Your task to perform on an android device: open the mobile data screen to see how much data has been used Image 0: 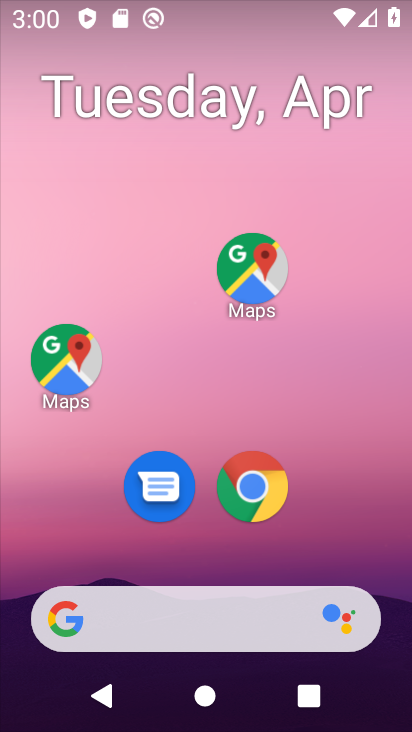
Step 0: drag from (322, 322) to (287, 94)
Your task to perform on an android device: open the mobile data screen to see how much data has been used Image 1: 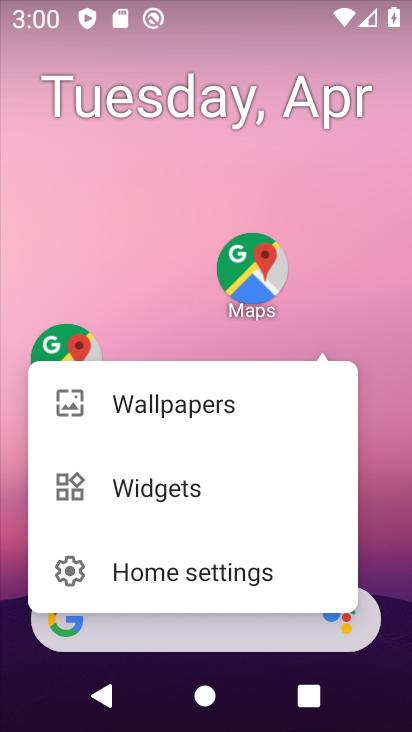
Step 1: click (350, 299)
Your task to perform on an android device: open the mobile data screen to see how much data has been used Image 2: 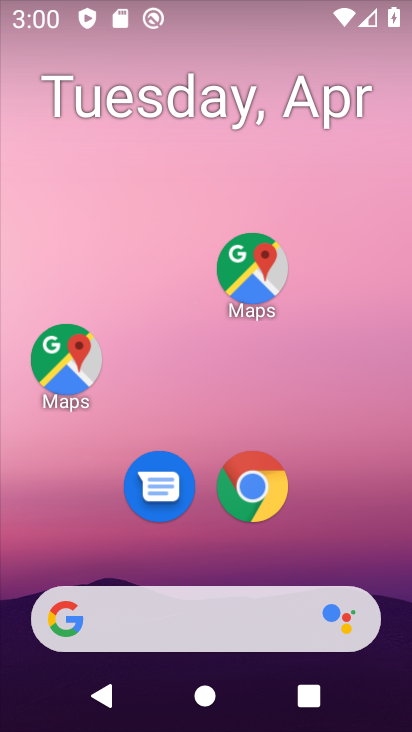
Step 2: drag from (198, 560) to (143, 173)
Your task to perform on an android device: open the mobile data screen to see how much data has been used Image 3: 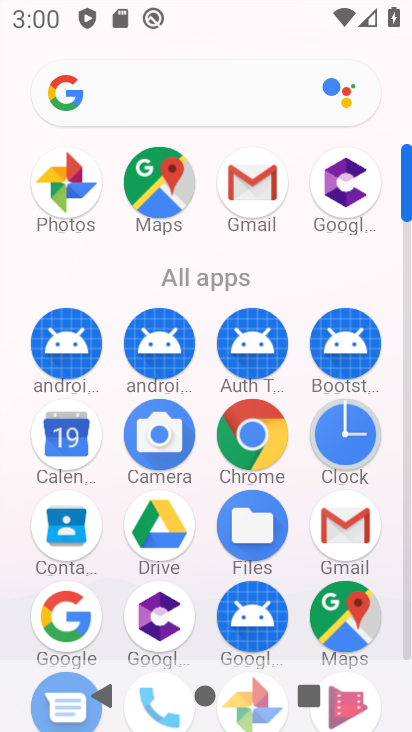
Step 3: drag from (284, 489) to (287, 229)
Your task to perform on an android device: open the mobile data screen to see how much data has been used Image 4: 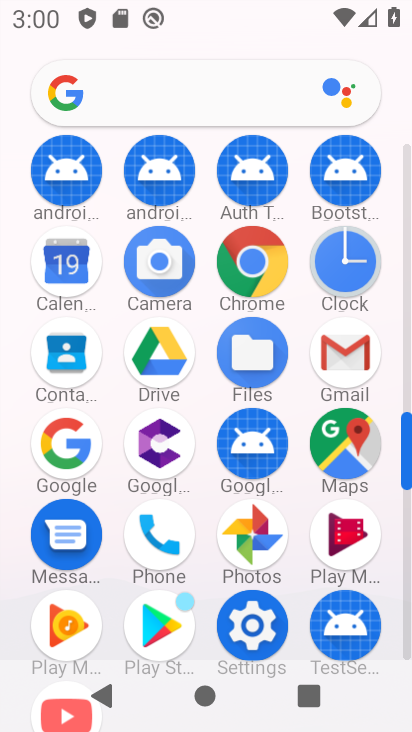
Step 4: click (264, 630)
Your task to perform on an android device: open the mobile data screen to see how much data has been used Image 5: 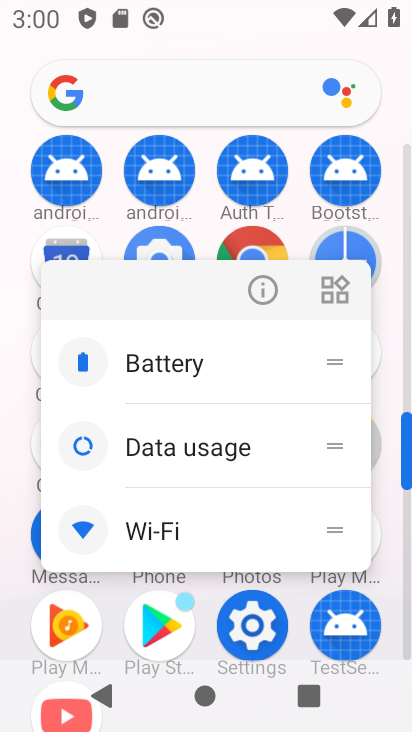
Step 5: click (250, 612)
Your task to perform on an android device: open the mobile data screen to see how much data has been used Image 6: 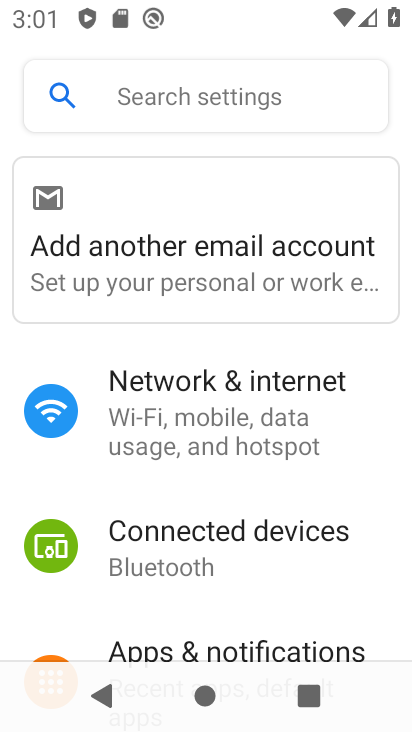
Step 6: drag from (258, 575) to (284, 442)
Your task to perform on an android device: open the mobile data screen to see how much data has been used Image 7: 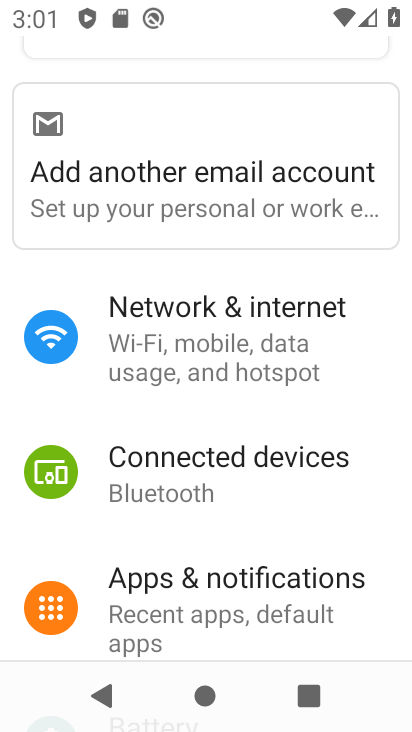
Step 7: click (266, 361)
Your task to perform on an android device: open the mobile data screen to see how much data has been used Image 8: 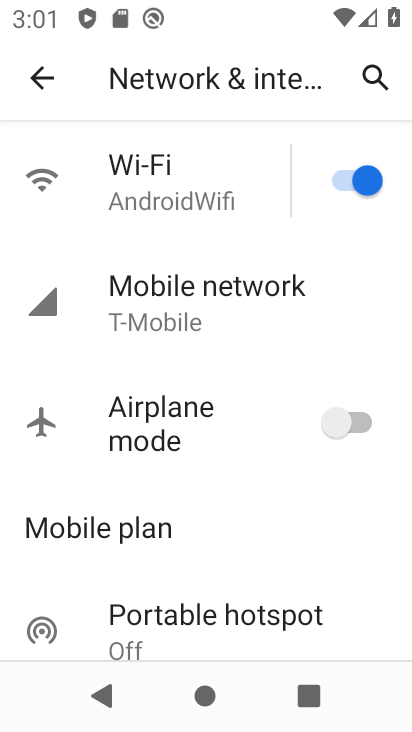
Step 8: click (242, 316)
Your task to perform on an android device: open the mobile data screen to see how much data has been used Image 9: 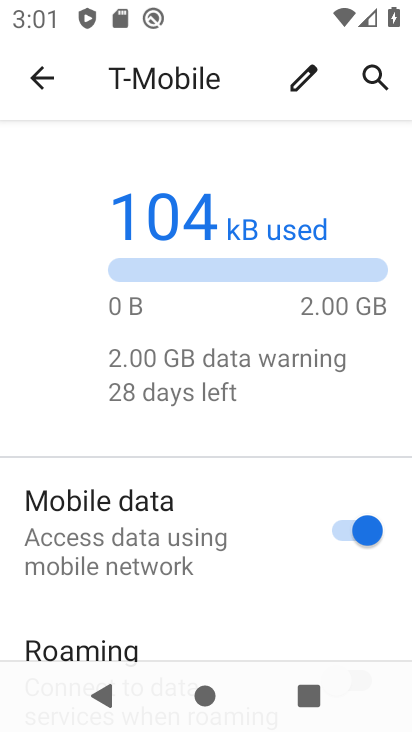
Step 9: click (256, 314)
Your task to perform on an android device: open the mobile data screen to see how much data has been used Image 10: 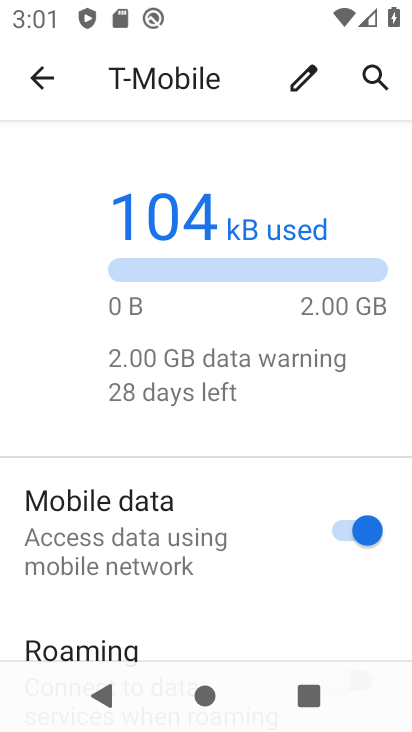
Step 10: click (257, 286)
Your task to perform on an android device: open the mobile data screen to see how much data has been used Image 11: 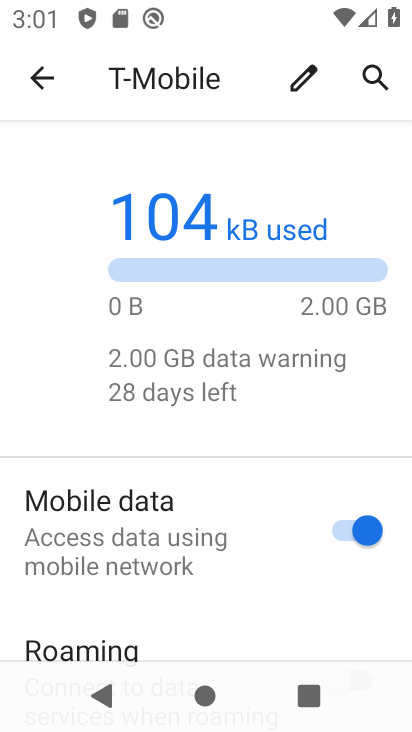
Step 11: drag from (191, 612) to (246, 366)
Your task to perform on an android device: open the mobile data screen to see how much data has been used Image 12: 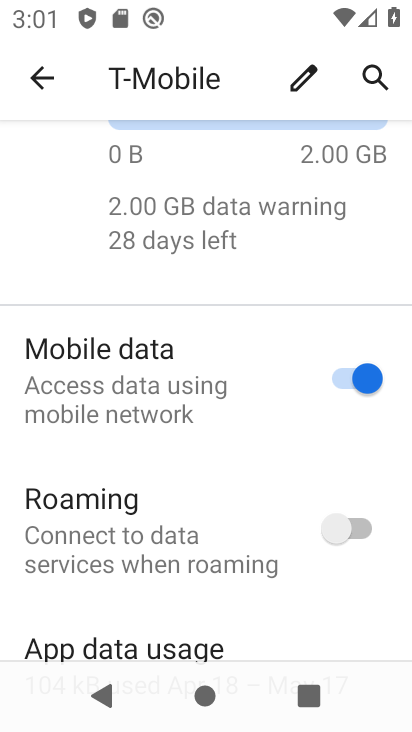
Step 12: drag from (202, 464) to (242, 335)
Your task to perform on an android device: open the mobile data screen to see how much data has been used Image 13: 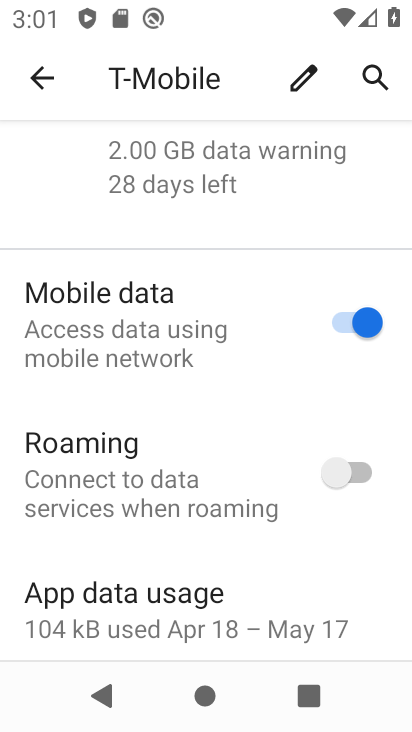
Step 13: drag from (205, 608) to (248, 342)
Your task to perform on an android device: open the mobile data screen to see how much data has been used Image 14: 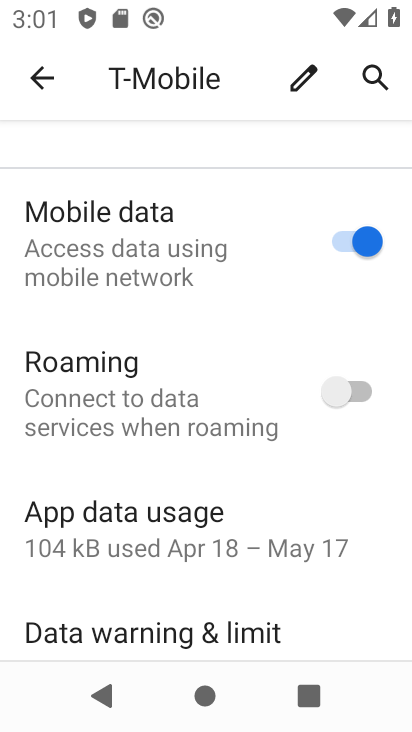
Step 14: click (198, 536)
Your task to perform on an android device: open the mobile data screen to see how much data has been used Image 15: 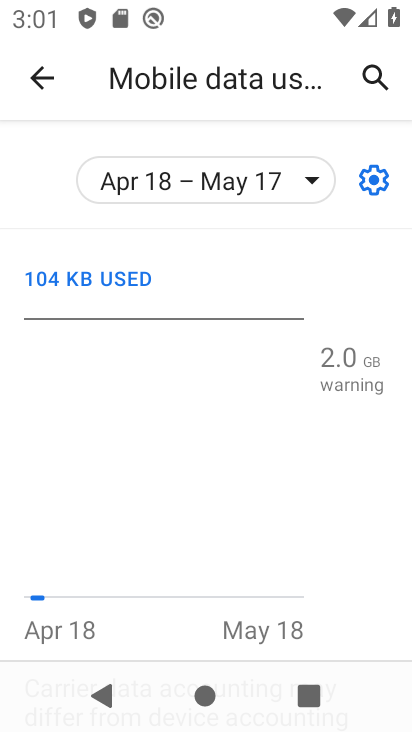
Step 15: task complete